Your task to perform on an android device: Open Android settings Image 0: 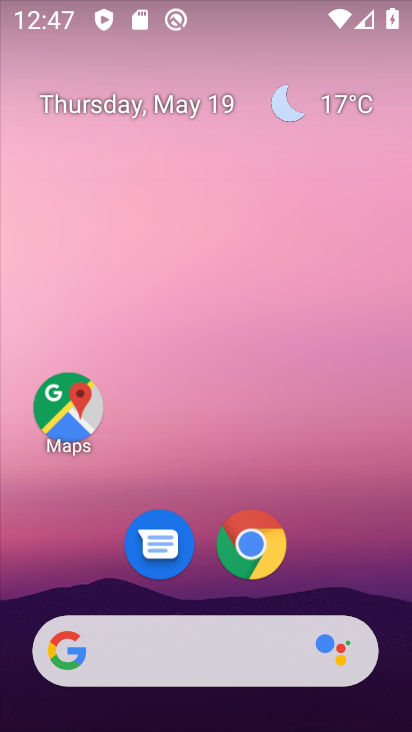
Step 0: drag from (188, 717) to (188, 199)
Your task to perform on an android device: Open Android settings Image 1: 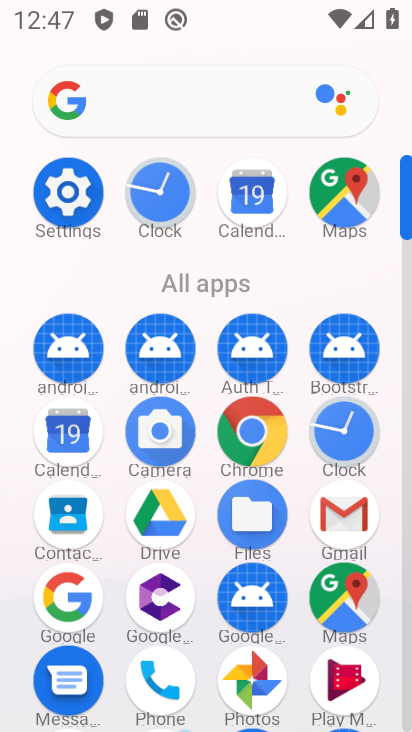
Step 1: click (76, 190)
Your task to perform on an android device: Open Android settings Image 2: 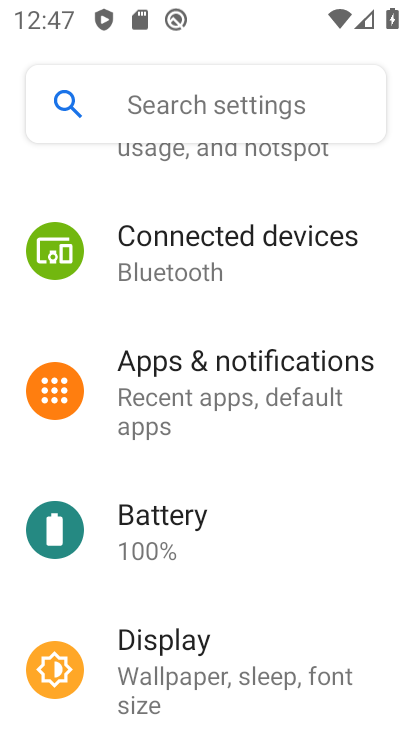
Step 2: task complete